Your task to perform on an android device: turn on translation in the chrome app Image 0: 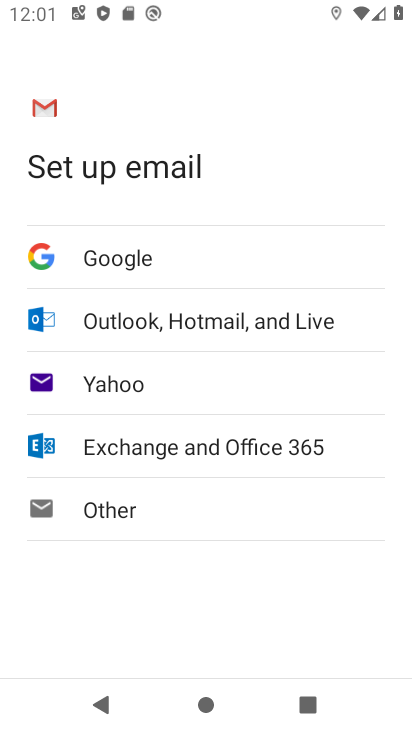
Step 0: press home button
Your task to perform on an android device: turn on translation in the chrome app Image 1: 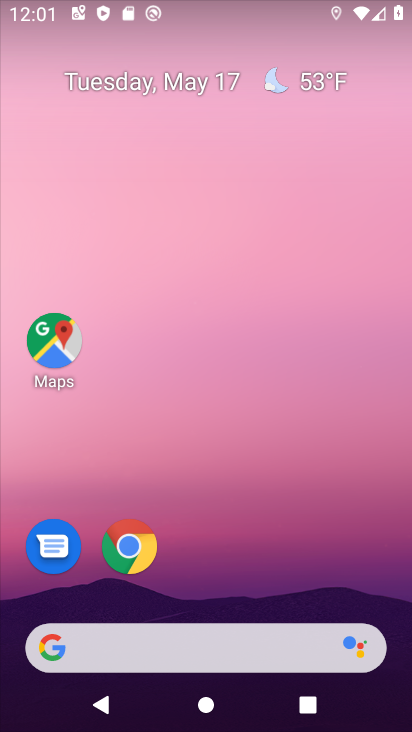
Step 1: click (132, 548)
Your task to perform on an android device: turn on translation in the chrome app Image 2: 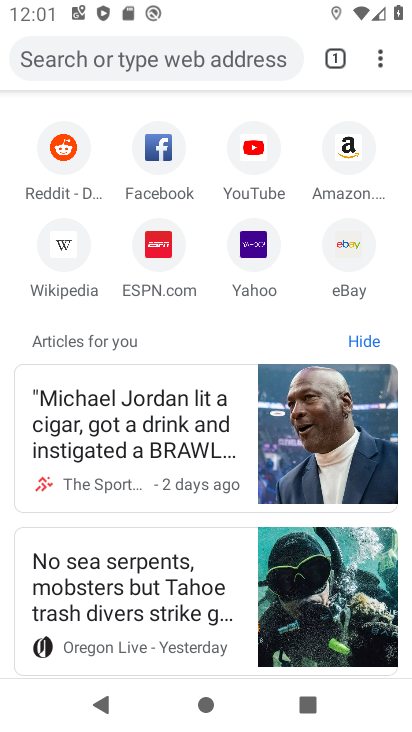
Step 2: click (376, 64)
Your task to perform on an android device: turn on translation in the chrome app Image 3: 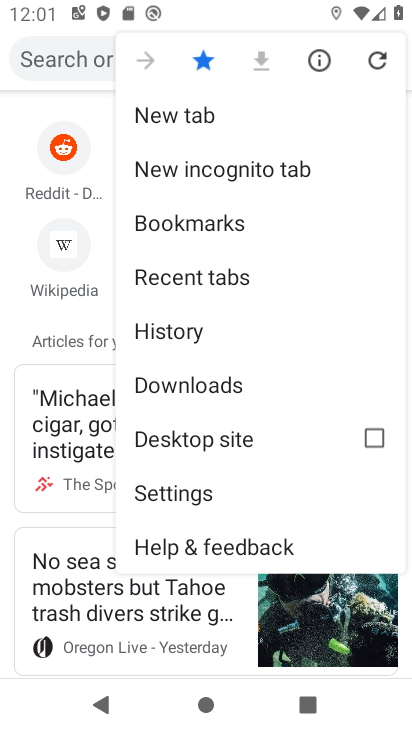
Step 3: click (214, 484)
Your task to perform on an android device: turn on translation in the chrome app Image 4: 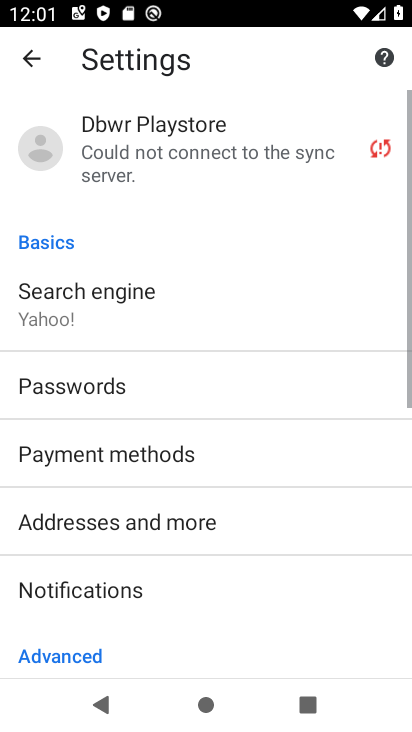
Step 4: drag from (195, 536) to (181, 110)
Your task to perform on an android device: turn on translation in the chrome app Image 5: 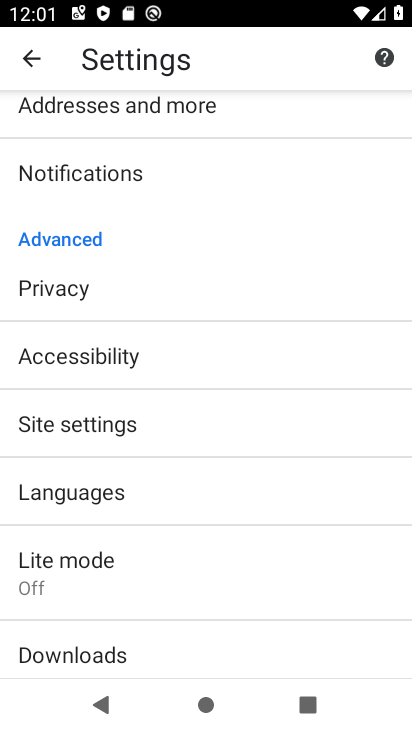
Step 5: click (100, 505)
Your task to perform on an android device: turn on translation in the chrome app Image 6: 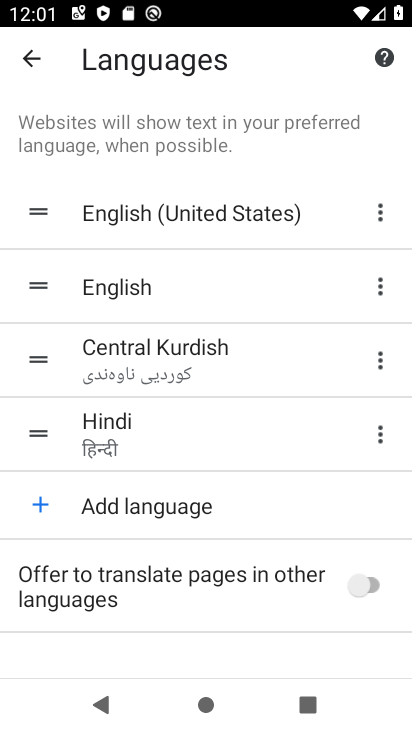
Step 6: click (363, 584)
Your task to perform on an android device: turn on translation in the chrome app Image 7: 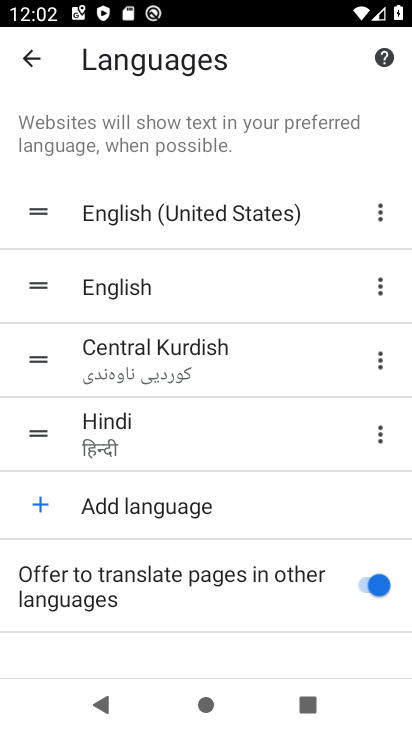
Step 7: task complete